Your task to perform on an android device: Open Yahoo.com Image 0: 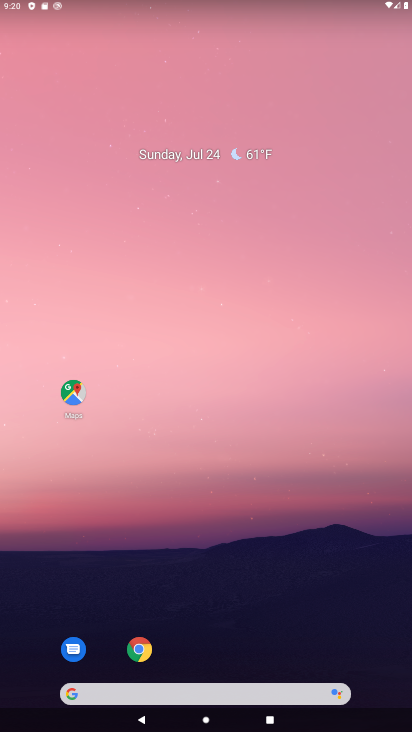
Step 0: drag from (293, 689) to (150, 99)
Your task to perform on an android device: Open Yahoo.com Image 1: 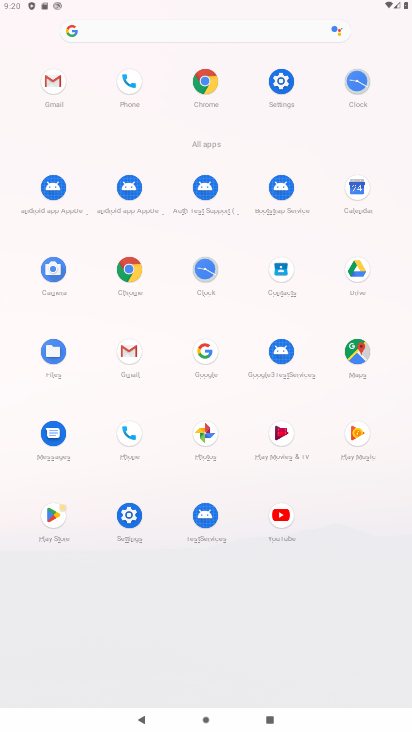
Step 1: click (205, 80)
Your task to perform on an android device: Open Yahoo.com Image 2: 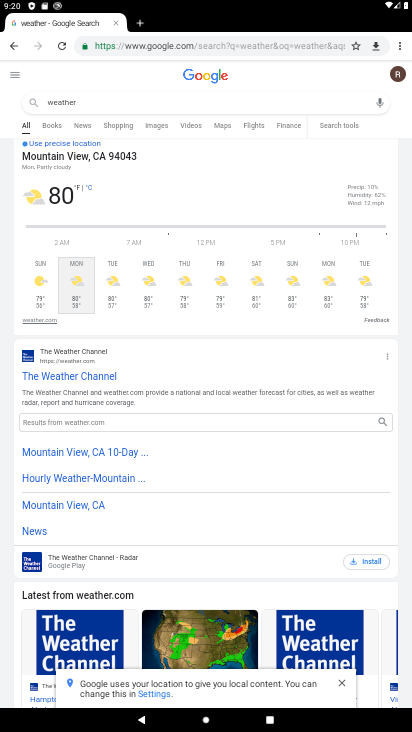
Step 2: click (197, 46)
Your task to perform on an android device: Open Yahoo.com Image 3: 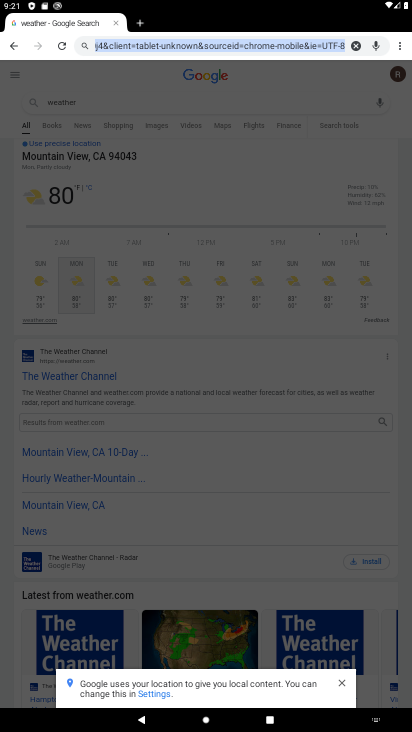
Step 3: type "yahoo.com"
Your task to perform on an android device: Open Yahoo.com Image 4: 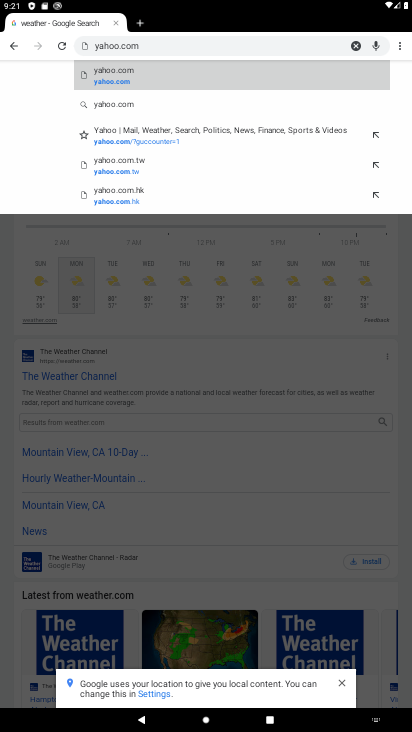
Step 4: click (113, 75)
Your task to perform on an android device: Open Yahoo.com Image 5: 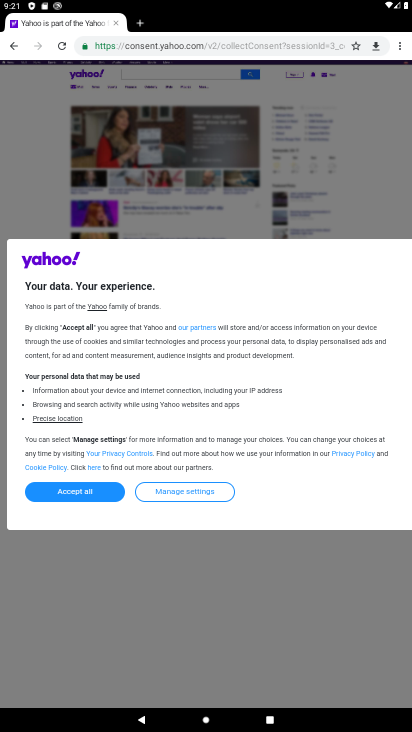
Step 5: task complete